Your task to perform on an android device: Go to display settings Image 0: 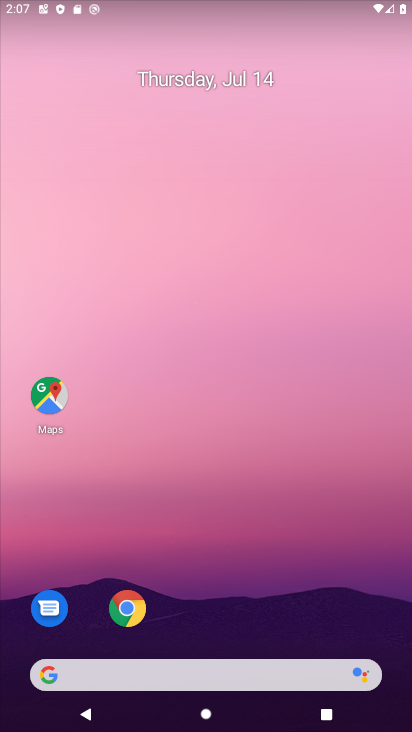
Step 0: drag from (252, 482) to (302, 64)
Your task to perform on an android device: Go to display settings Image 1: 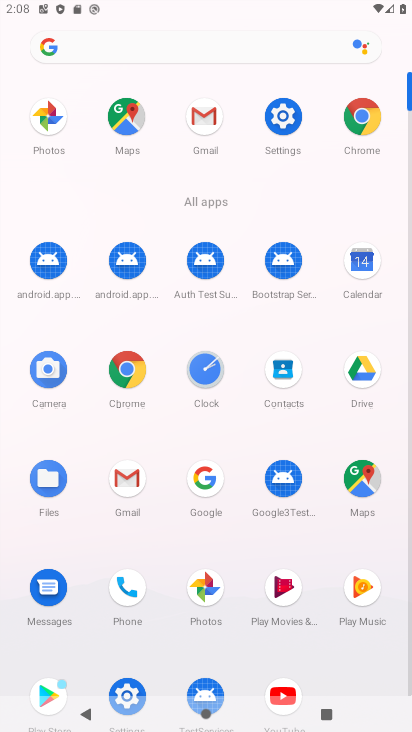
Step 1: click (281, 108)
Your task to perform on an android device: Go to display settings Image 2: 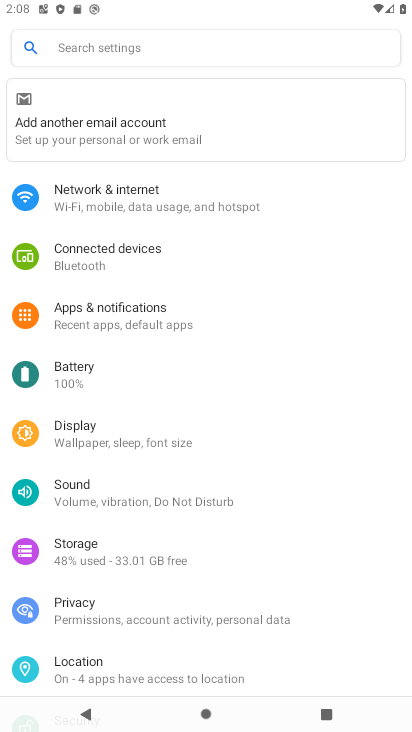
Step 2: click (92, 433)
Your task to perform on an android device: Go to display settings Image 3: 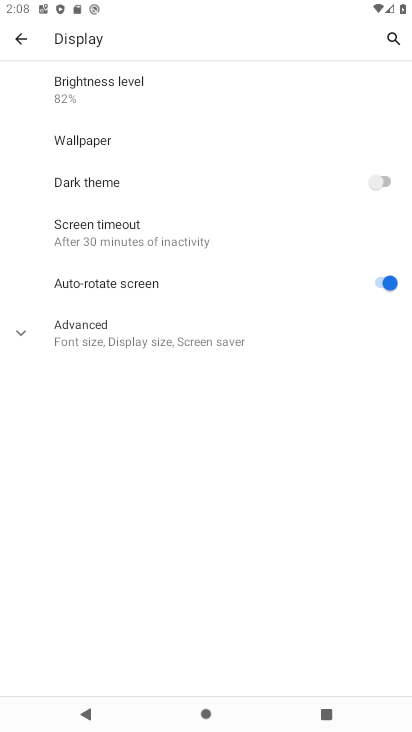
Step 3: task complete